Your task to perform on an android device: Go to Android settings Image 0: 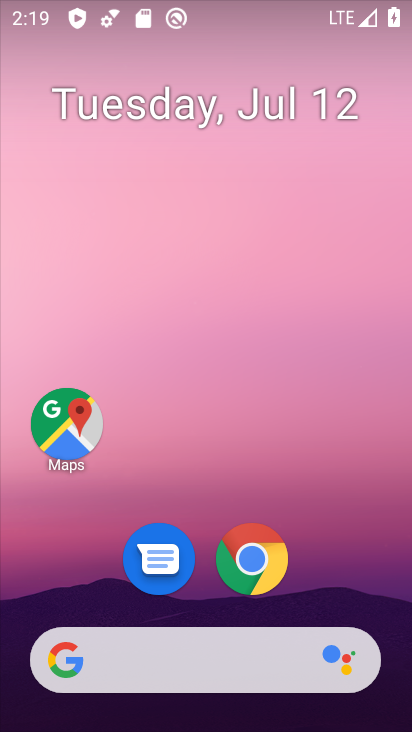
Step 0: drag from (411, 592) to (392, 289)
Your task to perform on an android device: Go to Android settings Image 1: 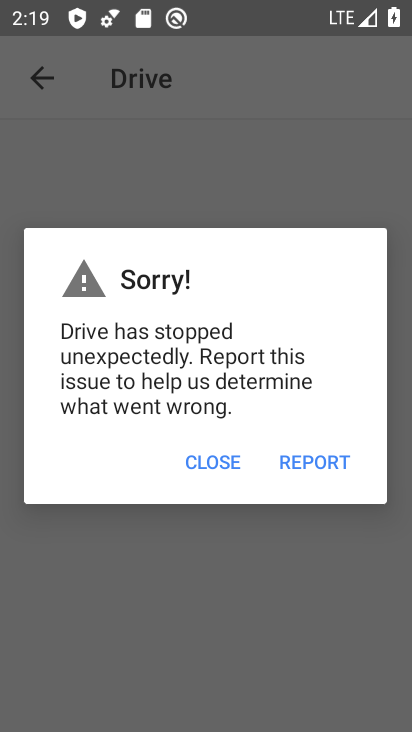
Step 1: press home button
Your task to perform on an android device: Go to Android settings Image 2: 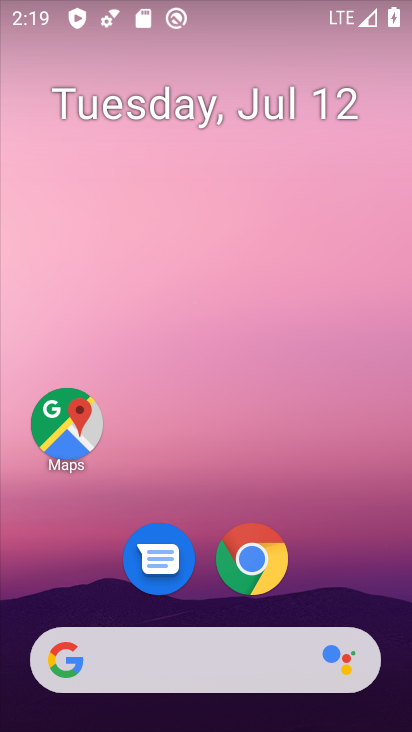
Step 2: drag from (340, 518) to (339, 88)
Your task to perform on an android device: Go to Android settings Image 3: 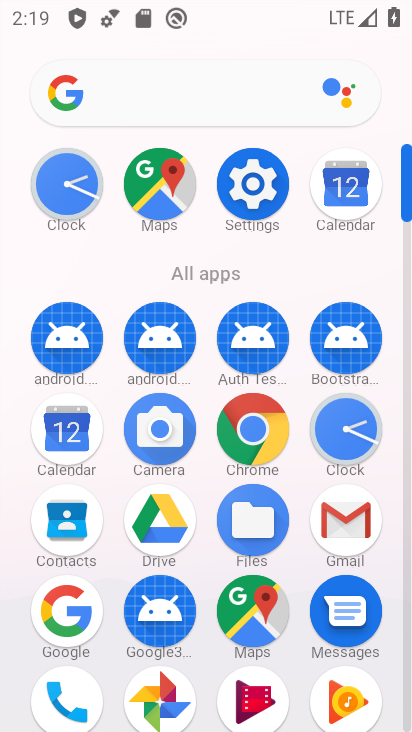
Step 3: click (261, 190)
Your task to perform on an android device: Go to Android settings Image 4: 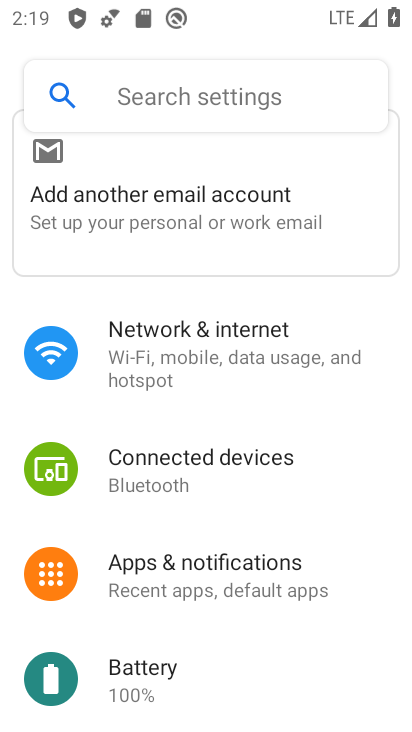
Step 4: drag from (375, 539) to (376, 435)
Your task to perform on an android device: Go to Android settings Image 5: 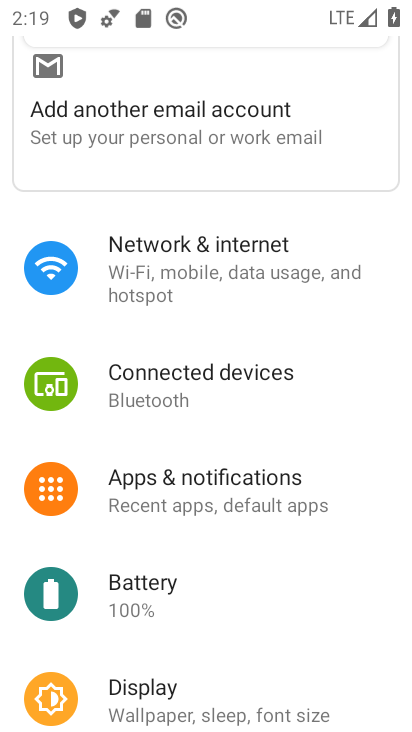
Step 5: drag from (372, 533) to (374, 428)
Your task to perform on an android device: Go to Android settings Image 6: 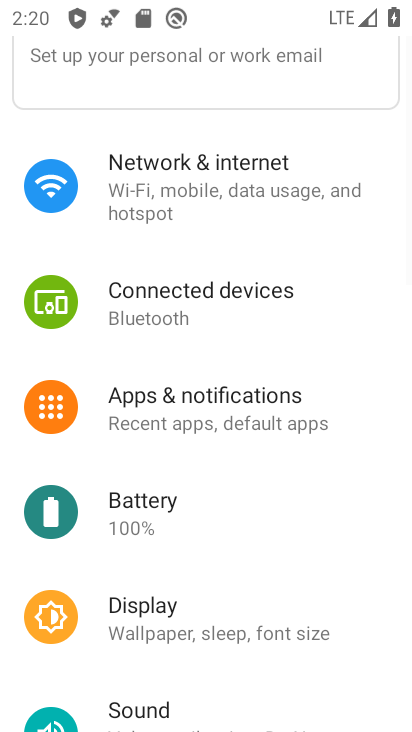
Step 6: drag from (370, 509) to (373, 417)
Your task to perform on an android device: Go to Android settings Image 7: 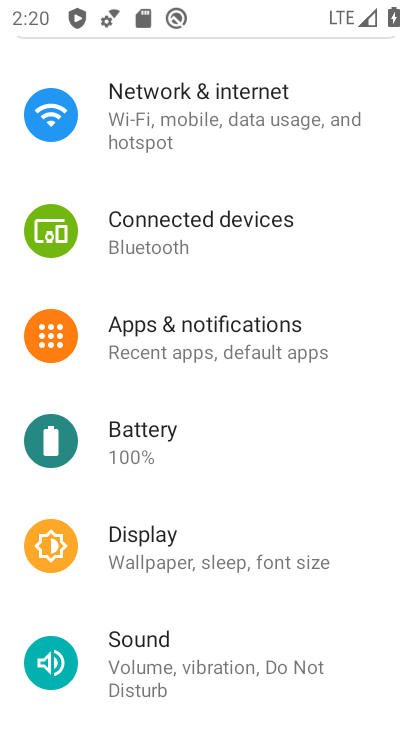
Step 7: drag from (370, 546) to (372, 433)
Your task to perform on an android device: Go to Android settings Image 8: 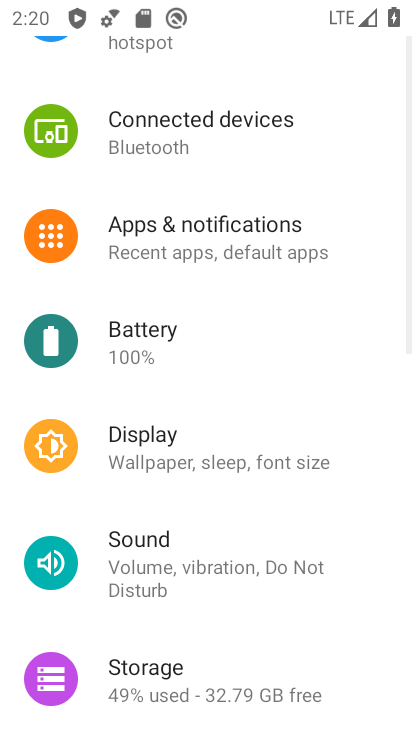
Step 8: drag from (350, 528) to (357, 426)
Your task to perform on an android device: Go to Android settings Image 9: 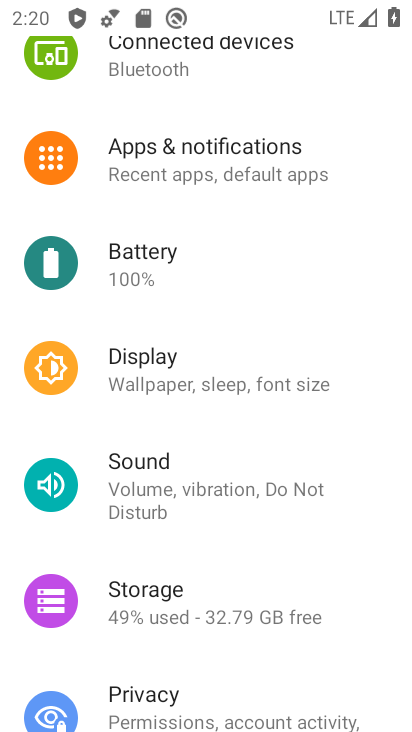
Step 9: drag from (354, 478) to (361, 415)
Your task to perform on an android device: Go to Android settings Image 10: 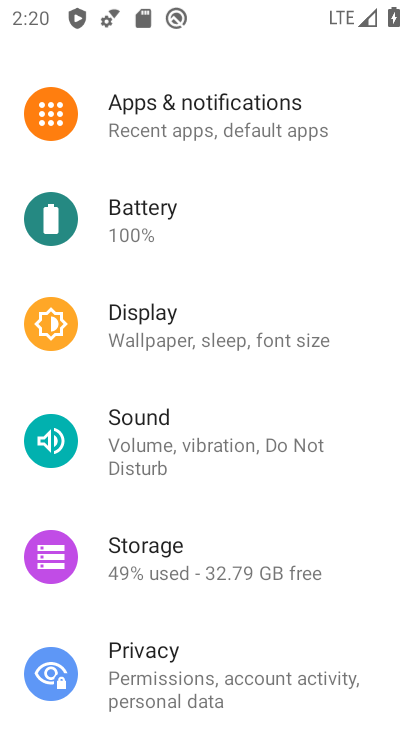
Step 10: drag from (348, 531) to (348, 438)
Your task to perform on an android device: Go to Android settings Image 11: 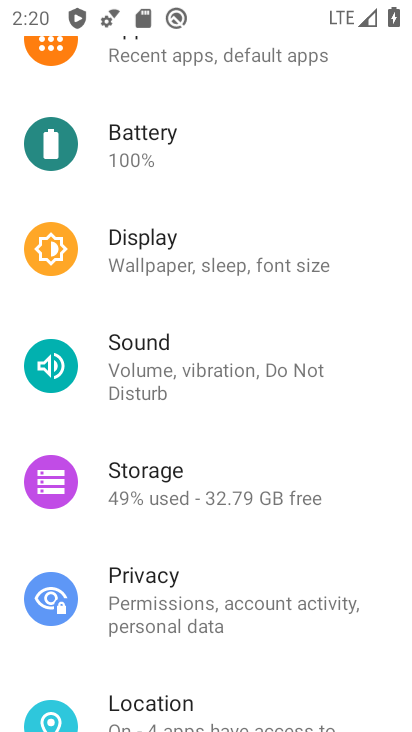
Step 11: drag from (342, 522) to (354, 457)
Your task to perform on an android device: Go to Android settings Image 12: 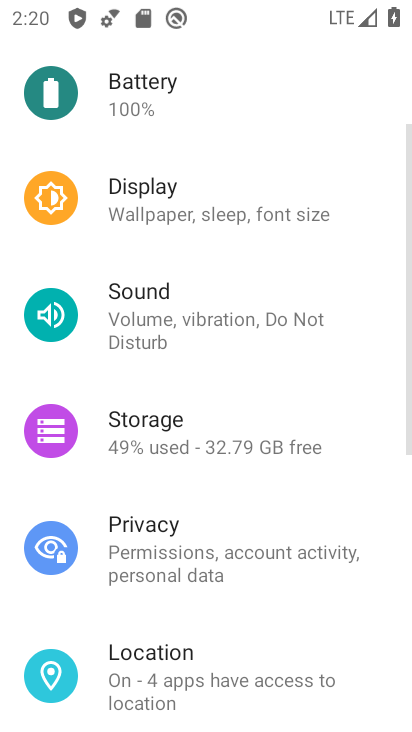
Step 12: drag from (352, 535) to (363, 432)
Your task to perform on an android device: Go to Android settings Image 13: 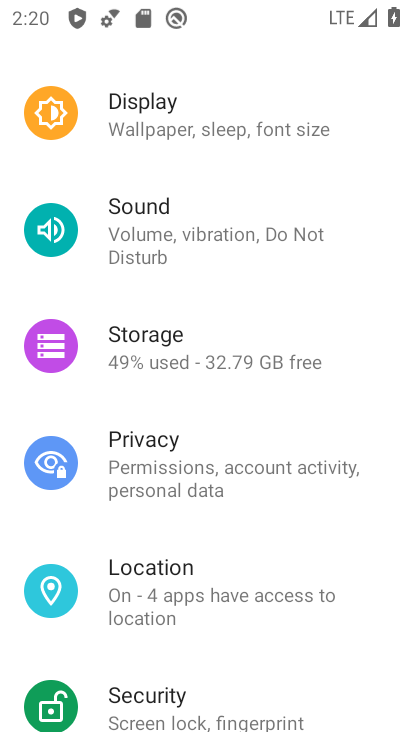
Step 13: drag from (365, 575) to (356, 486)
Your task to perform on an android device: Go to Android settings Image 14: 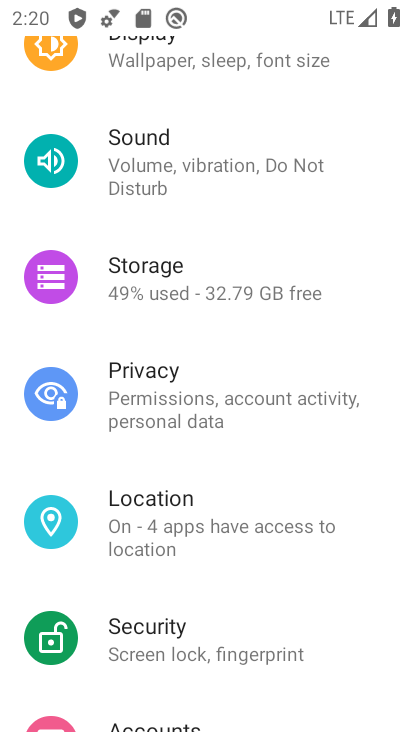
Step 14: drag from (352, 590) to (361, 499)
Your task to perform on an android device: Go to Android settings Image 15: 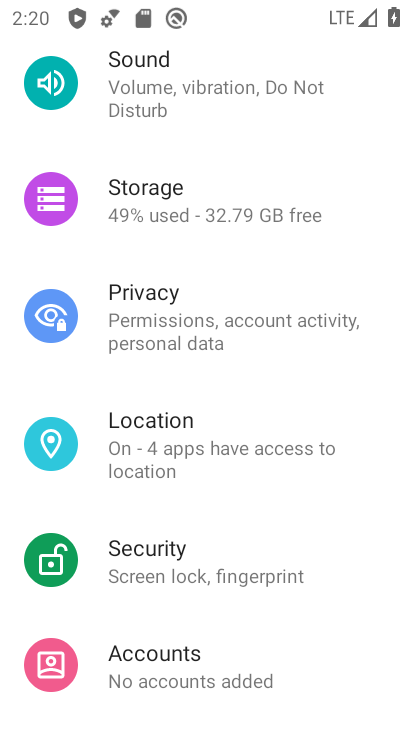
Step 15: drag from (357, 593) to (358, 510)
Your task to perform on an android device: Go to Android settings Image 16: 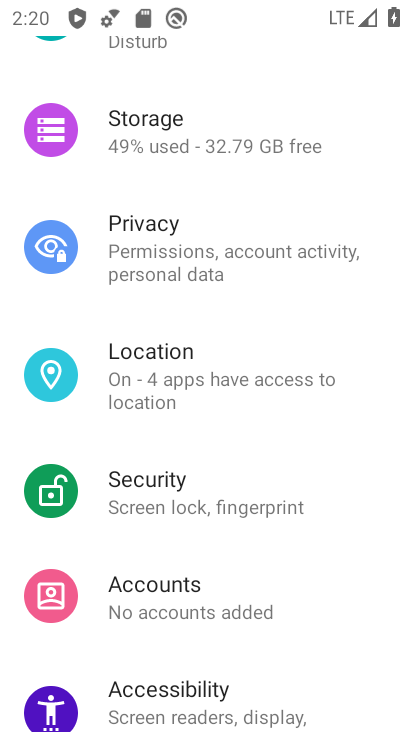
Step 16: drag from (353, 621) to (350, 445)
Your task to perform on an android device: Go to Android settings Image 17: 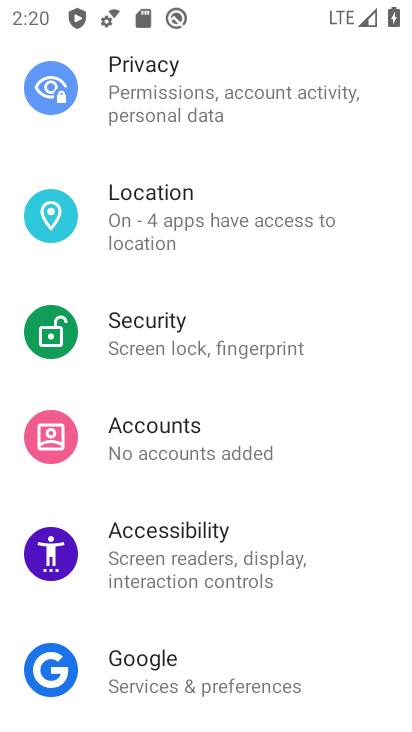
Step 17: drag from (356, 597) to (365, 483)
Your task to perform on an android device: Go to Android settings Image 18: 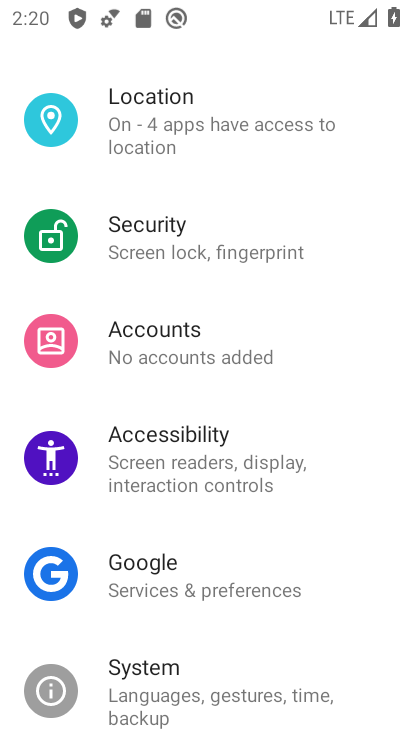
Step 18: drag from (347, 593) to (348, 487)
Your task to perform on an android device: Go to Android settings Image 19: 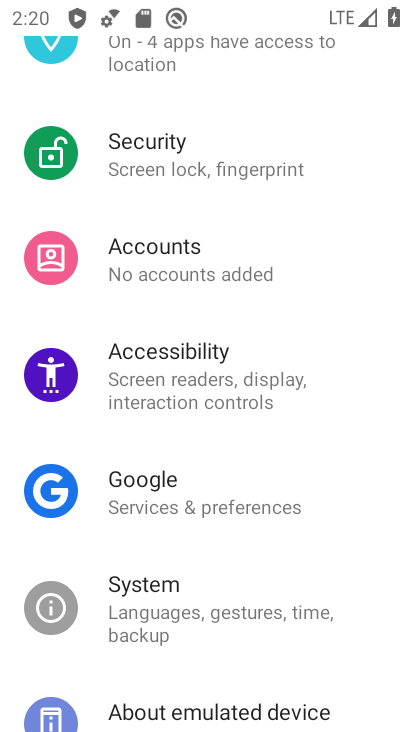
Step 19: click (327, 629)
Your task to perform on an android device: Go to Android settings Image 20: 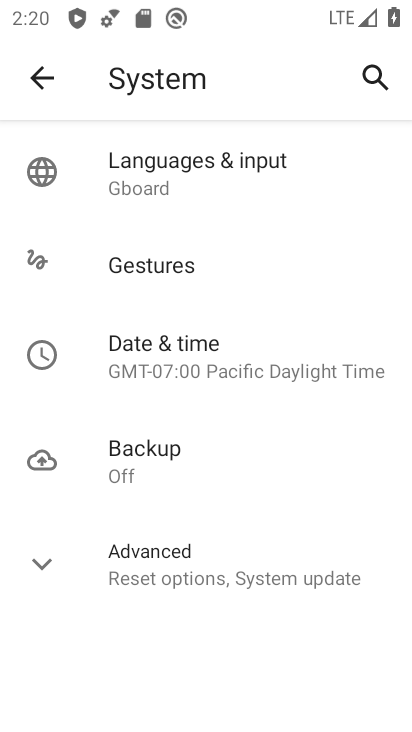
Step 20: click (245, 581)
Your task to perform on an android device: Go to Android settings Image 21: 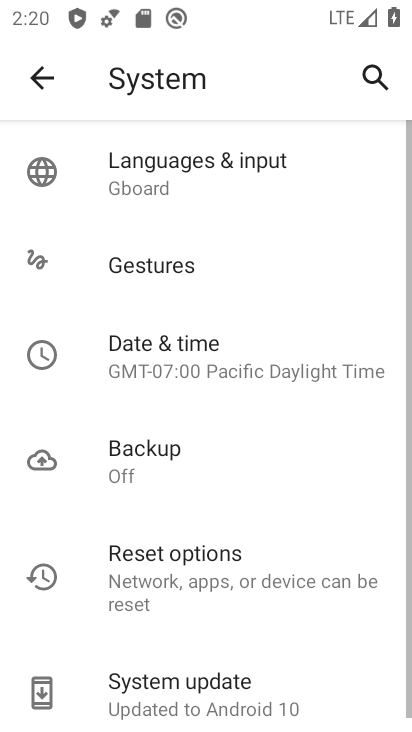
Step 21: task complete